Your task to perform on an android device: Clear all items from cart on ebay. Add "usb-a" to the cart on ebay Image 0: 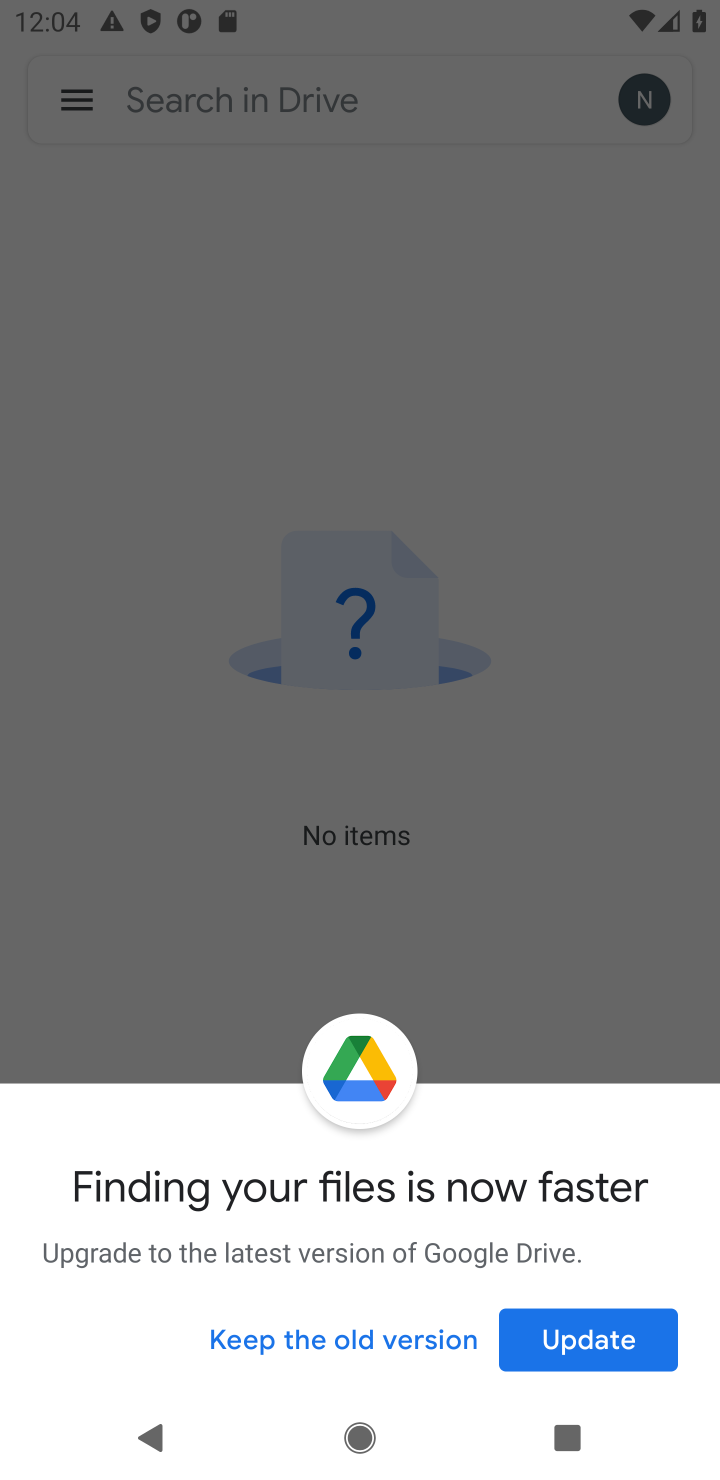
Step 0: press home button
Your task to perform on an android device: Clear all items from cart on ebay. Add "usb-a" to the cart on ebay Image 1: 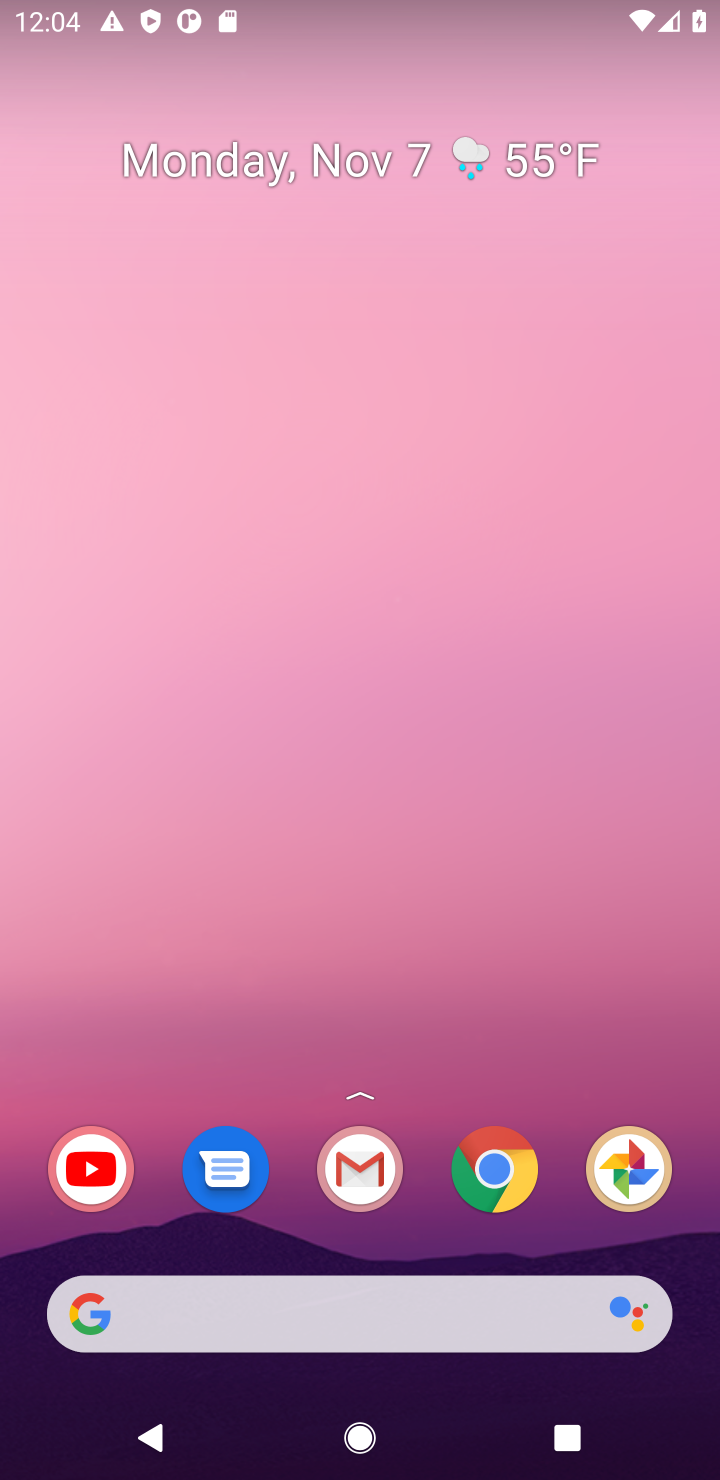
Step 1: click (501, 1148)
Your task to perform on an android device: Clear all items from cart on ebay. Add "usb-a" to the cart on ebay Image 2: 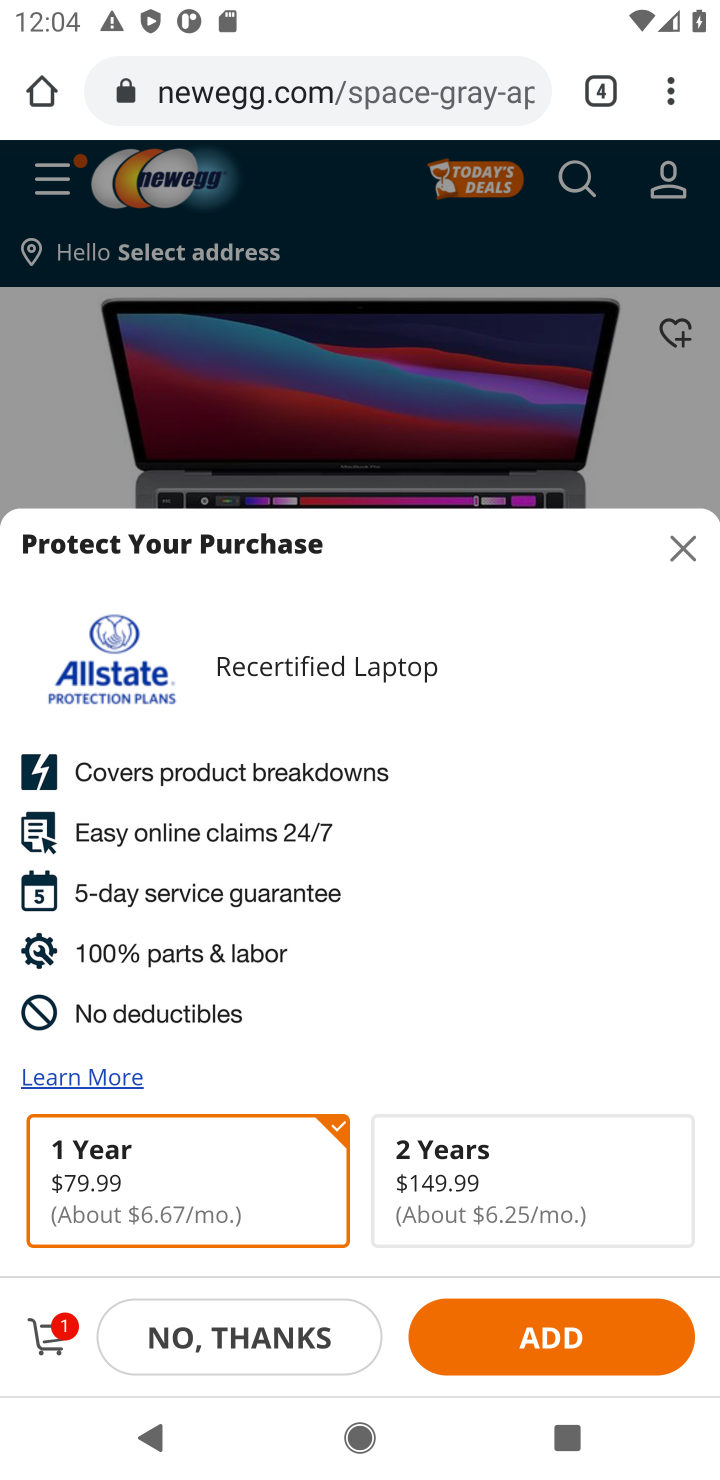
Step 2: click (591, 103)
Your task to perform on an android device: Clear all items from cart on ebay. Add "usb-a" to the cart on ebay Image 3: 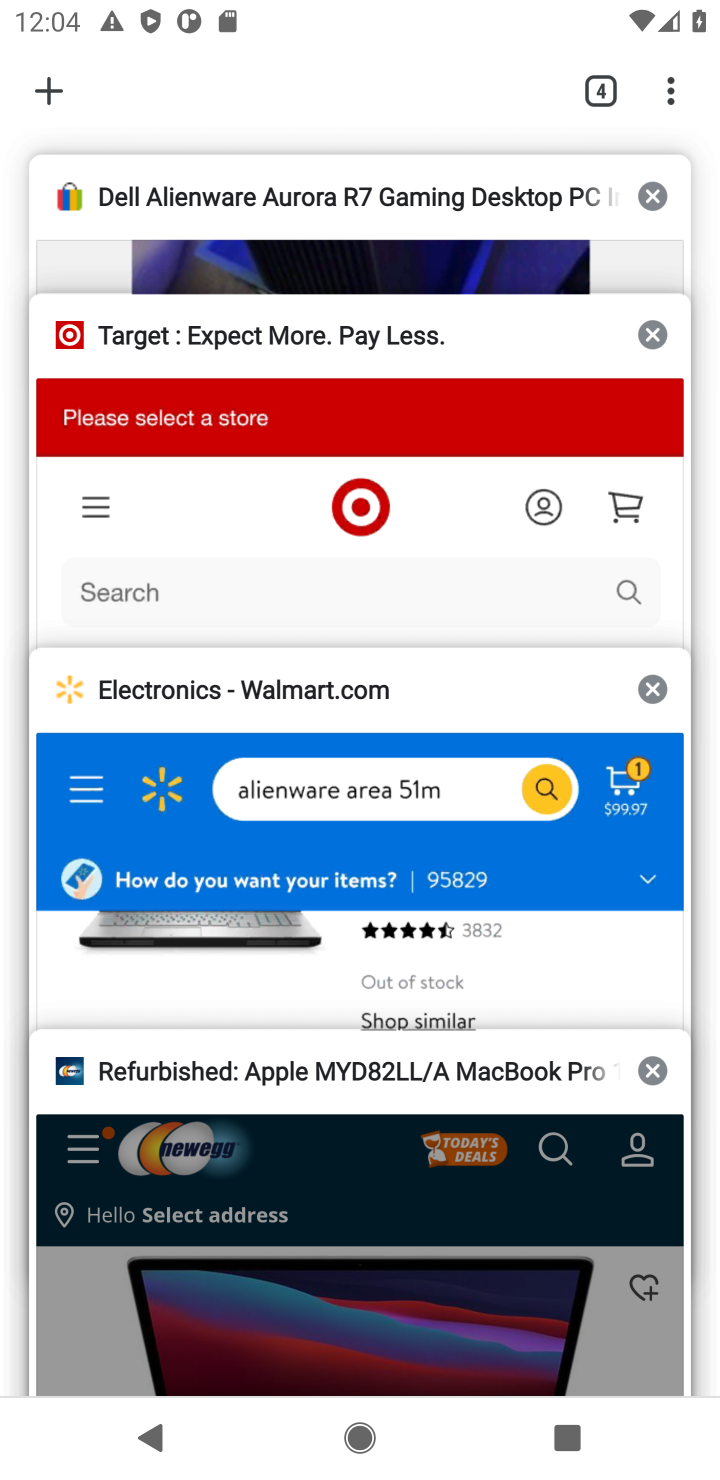
Step 3: click (189, 209)
Your task to perform on an android device: Clear all items from cart on ebay. Add "usb-a" to the cart on ebay Image 4: 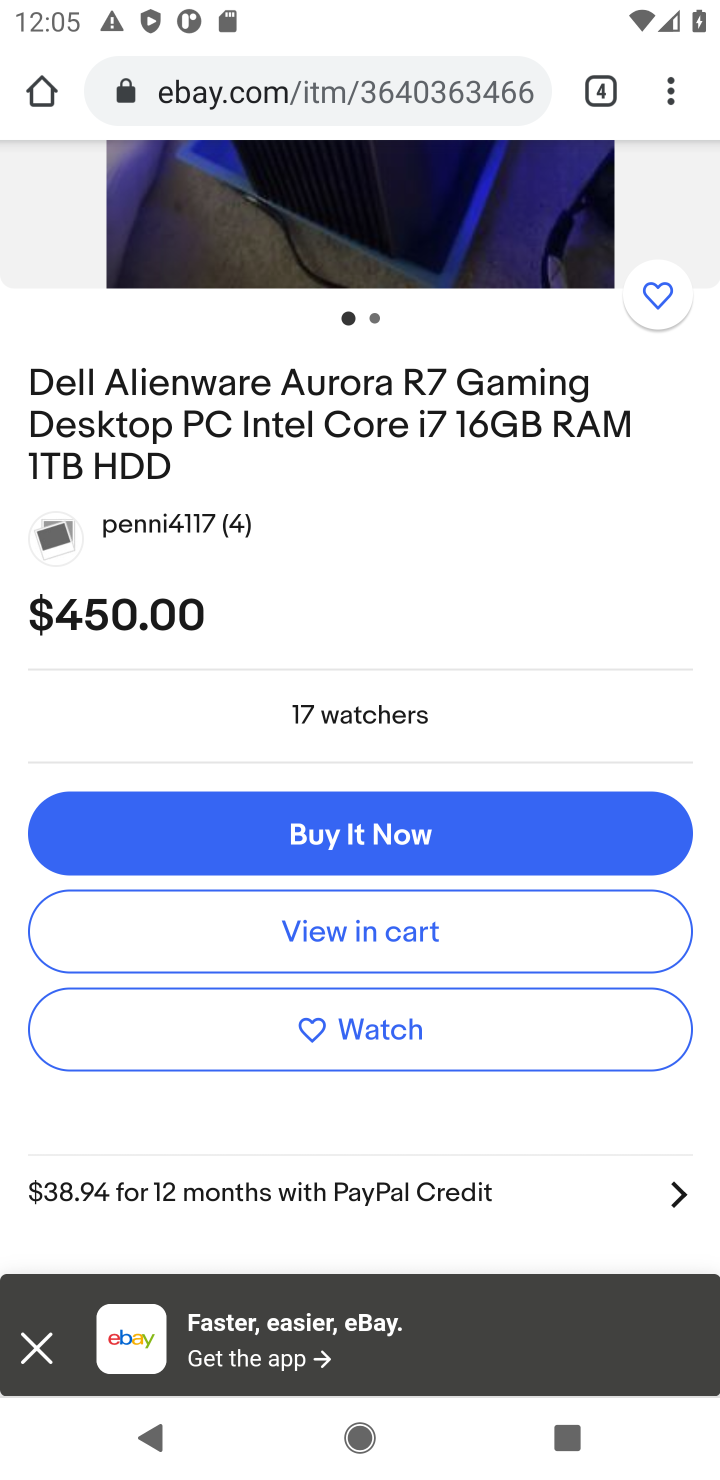
Step 4: drag from (193, 821) to (293, 1269)
Your task to perform on an android device: Clear all items from cart on ebay. Add "usb-a" to the cart on ebay Image 5: 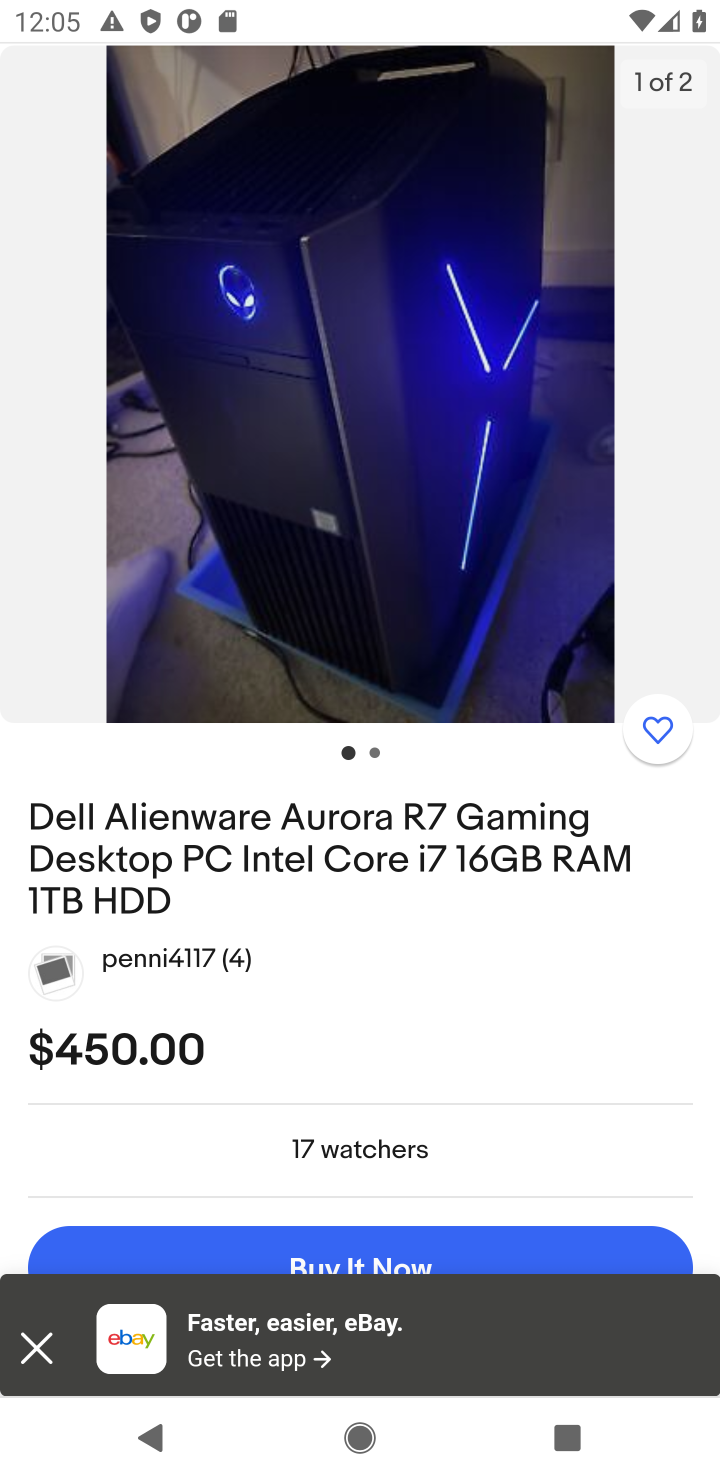
Step 5: drag from (595, 227) to (699, 1461)
Your task to perform on an android device: Clear all items from cart on ebay. Add "usb-a" to the cart on ebay Image 6: 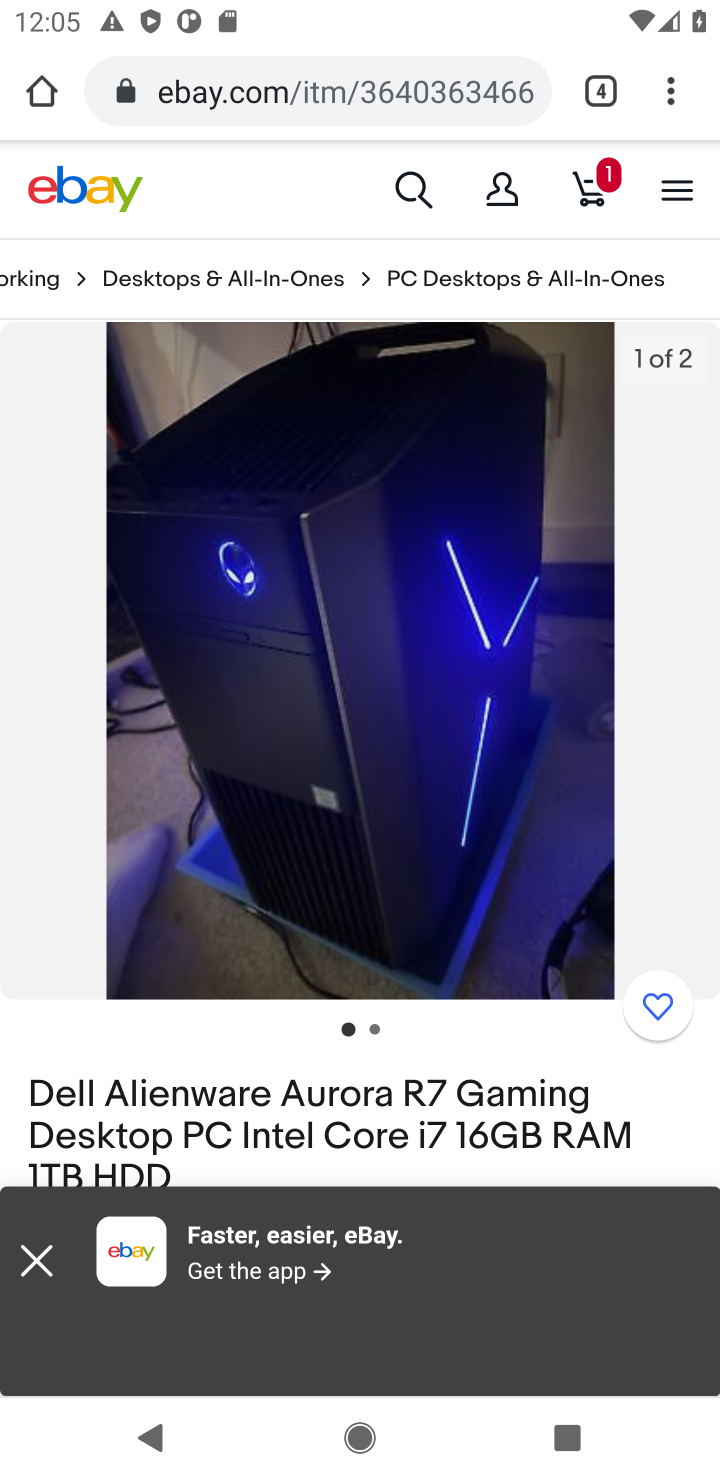
Step 6: click (584, 172)
Your task to perform on an android device: Clear all items from cart on ebay. Add "usb-a" to the cart on ebay Image 7: 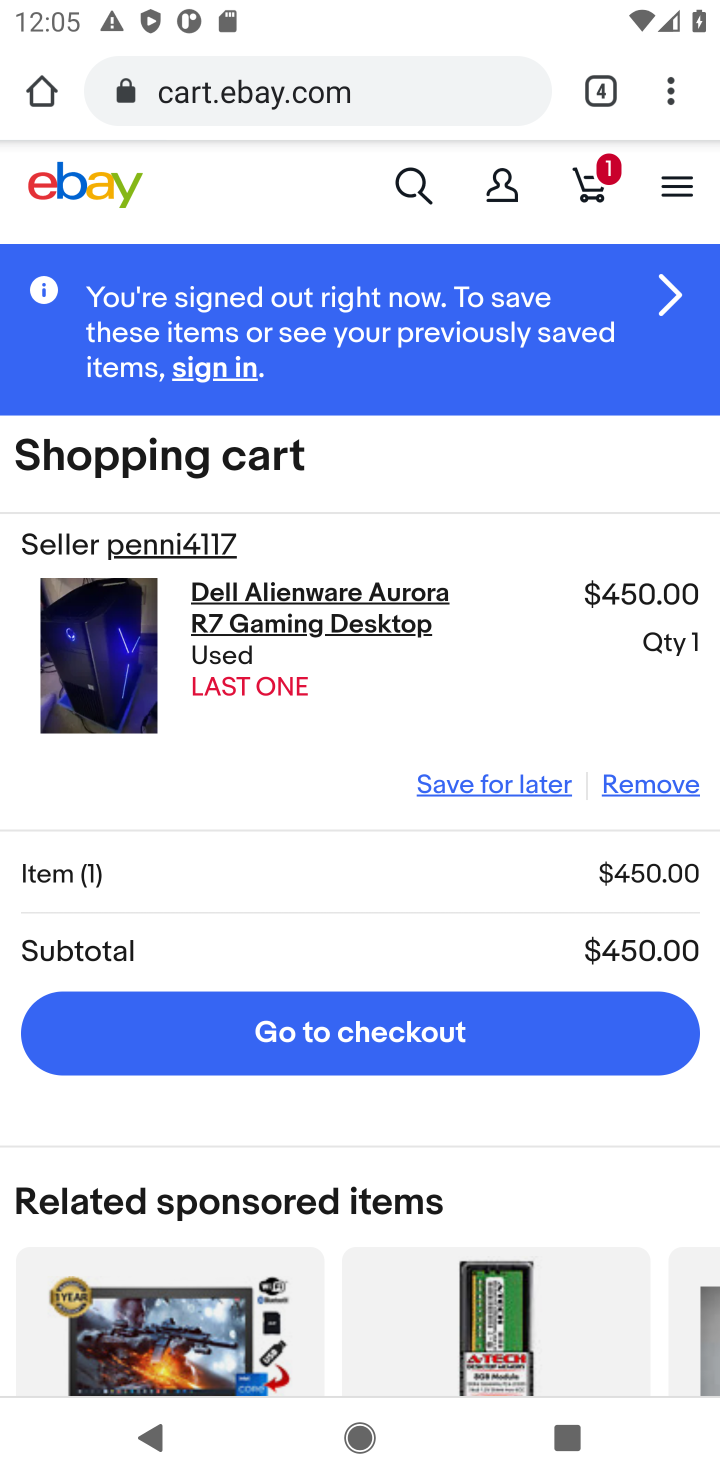
Step 7: click (628, 757)
Your task to perform on an android device: Clear all items from cart on ebay. Add "usb-a" to the cart on ebay Image 8: 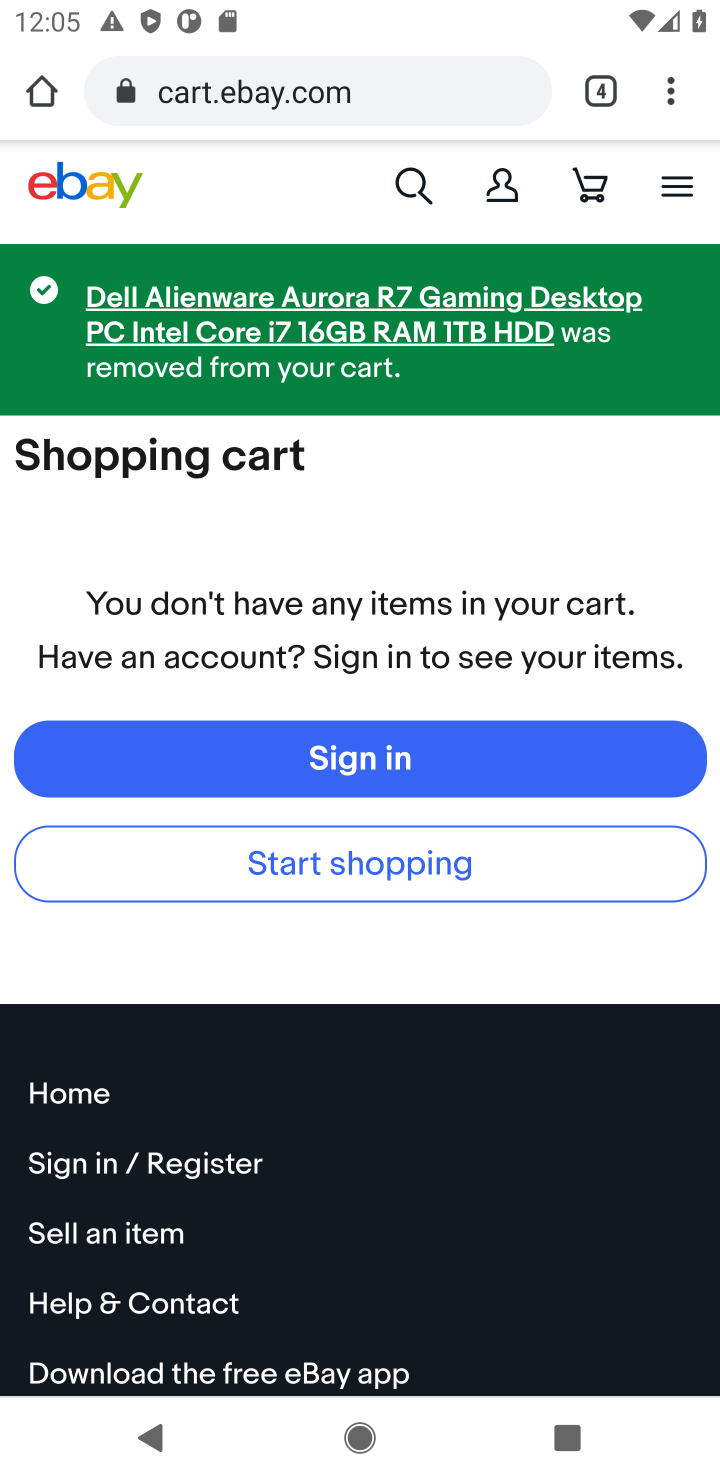
Step 8: click (398, 180)
Your task to perform on an android device: Clear all items from cart on ebay. Add "usb-a" to the cart on ebay Image 9: 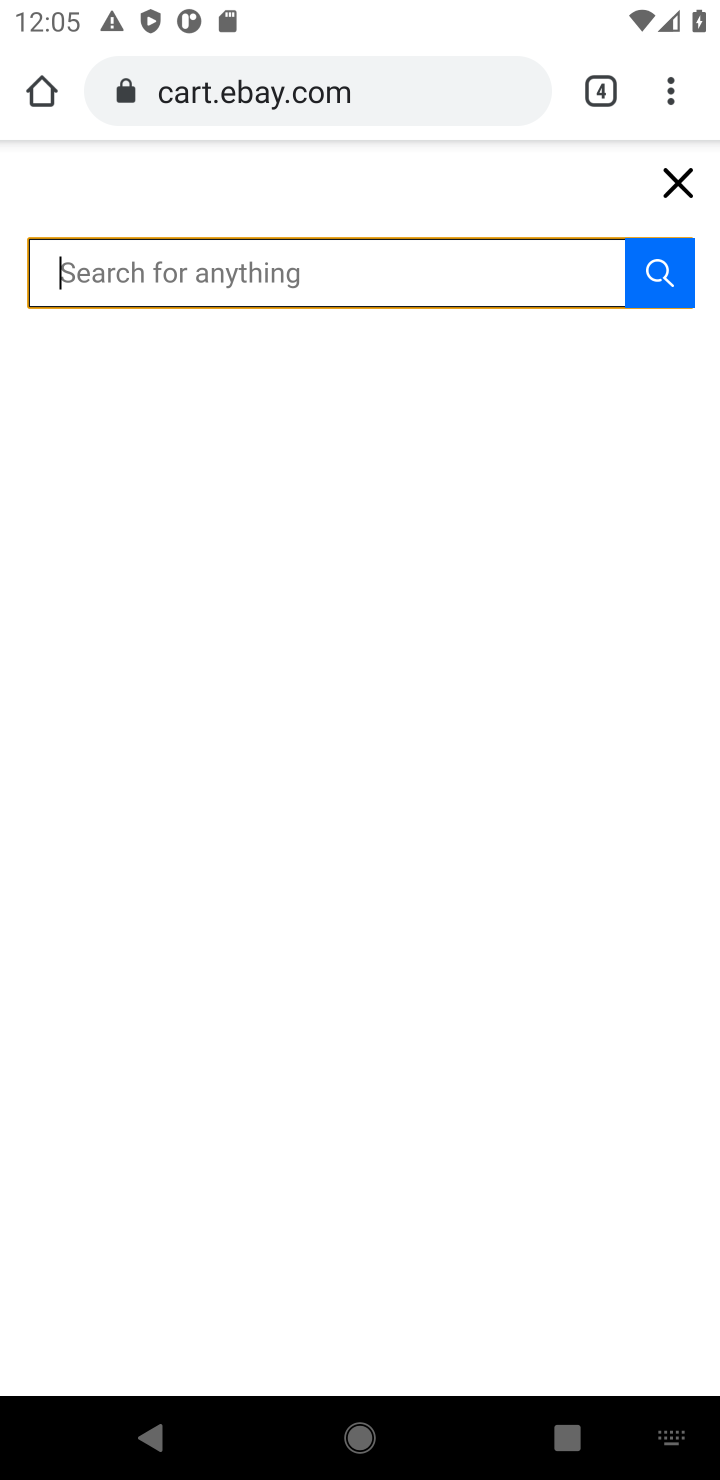
Step 9: type "usb-"
Your task to perform on an android device: Clear all items from cart on ebay. Add "usb-a" to the cart on ebay Image 10: 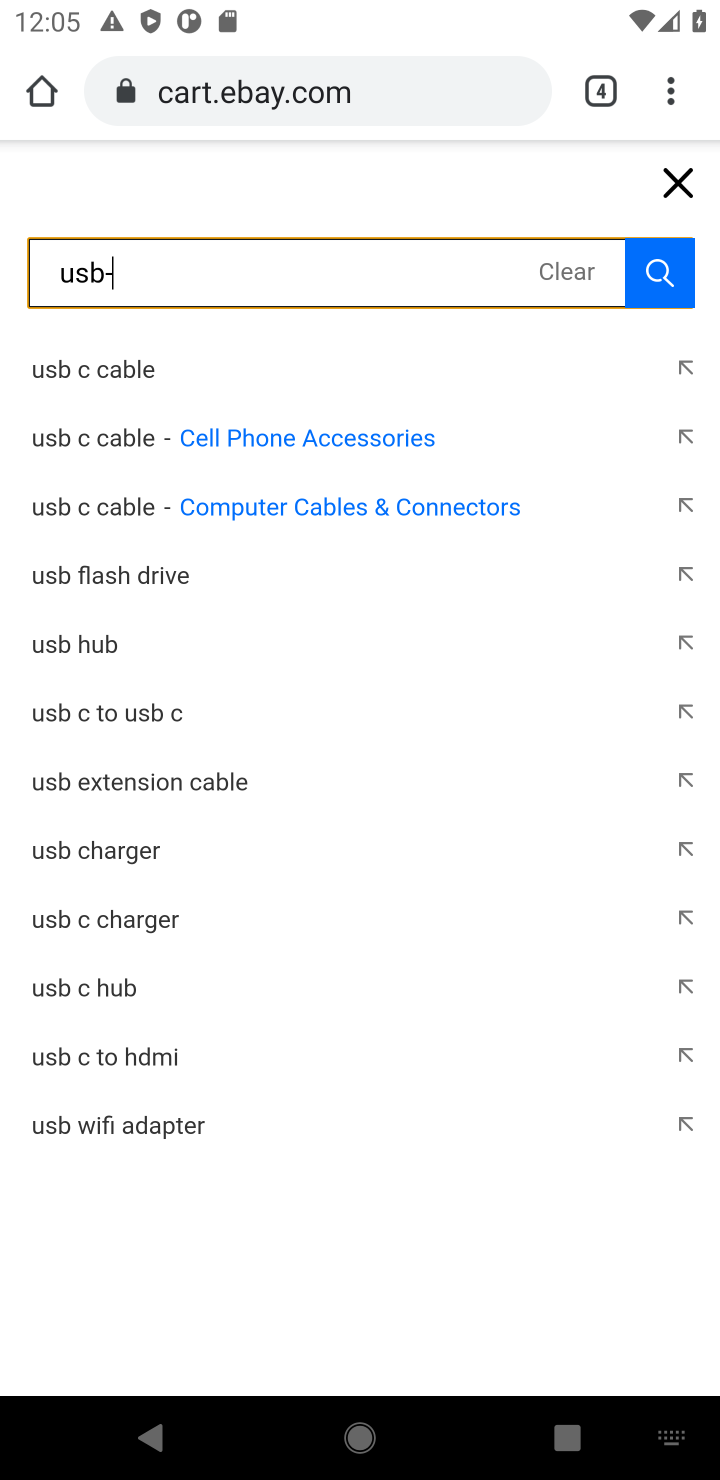
Step 10: type "a"
Your task to perform on an android device: Clear all items from cart on ebay. Add "usb-a" to the cart on ebay Image 11: 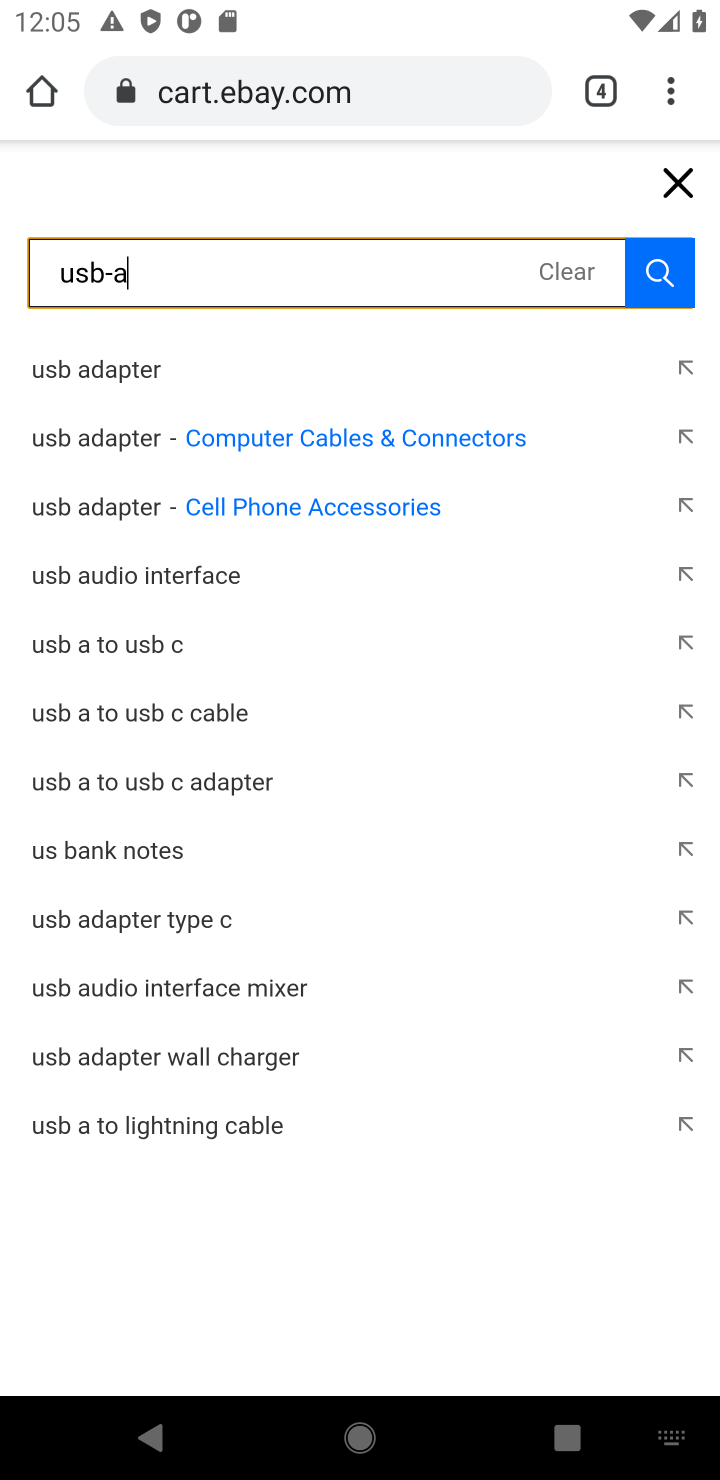
Step 11: click (651, 262)
Your task to perform on an android device: Clear all items from cart on ebay. Add "usb-a" to the cart on ebay Image 12: 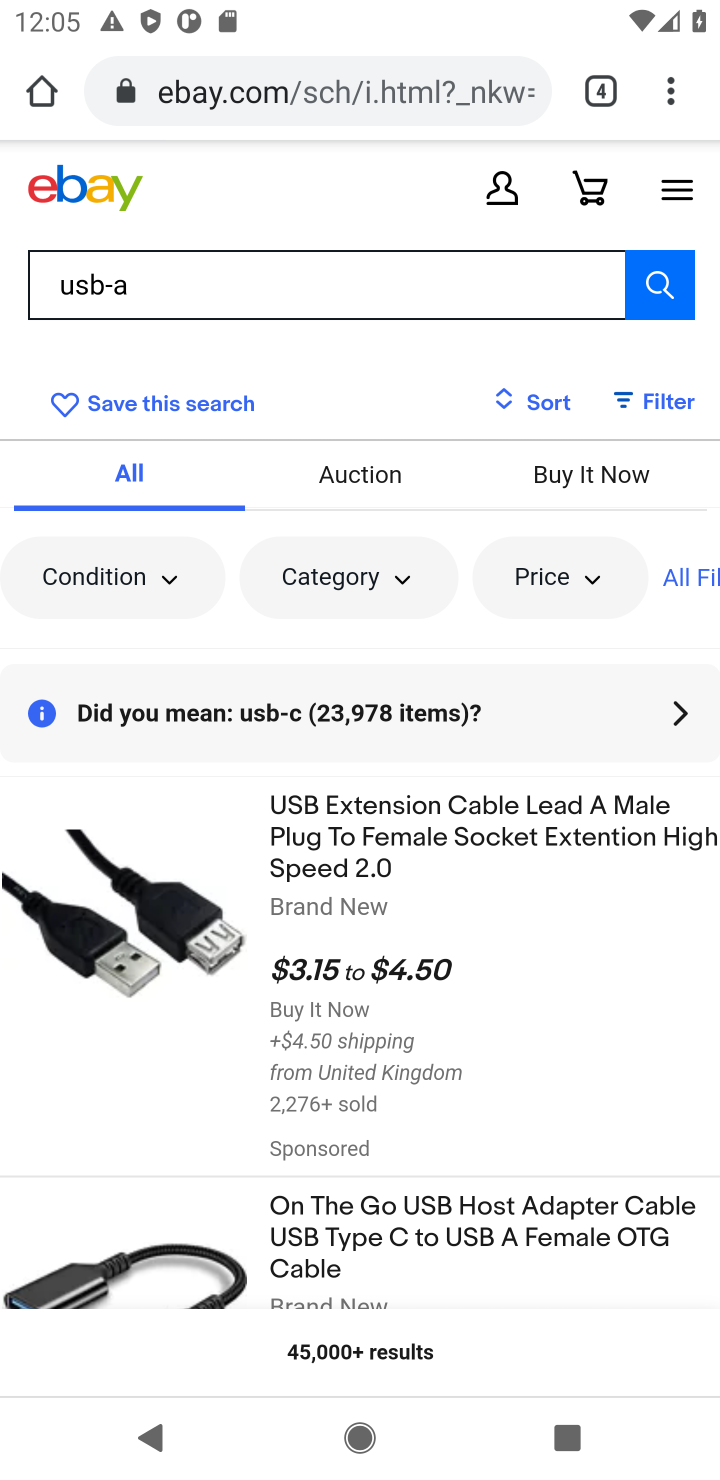
Step 12: click (308, 816)
Your task to perform on an android device: Clear all items from cart on ebay. Add "usb-a" to the cart on ebay Image 13: 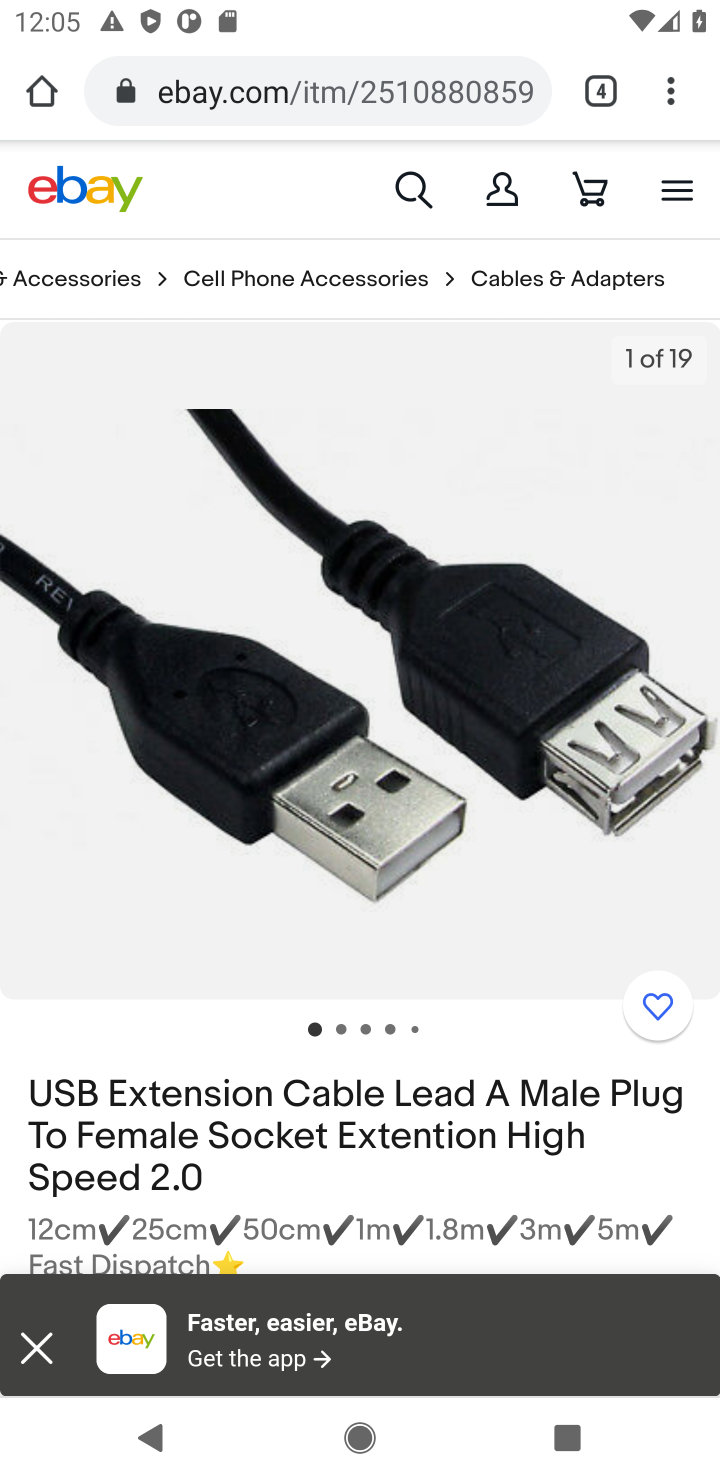
Step 13: drag from (454, 1167) to (623, 82)
Your task to perform on an android device: Clear all items from cart on ebay. Add "usb-a" to the cart on ebay Image 14: 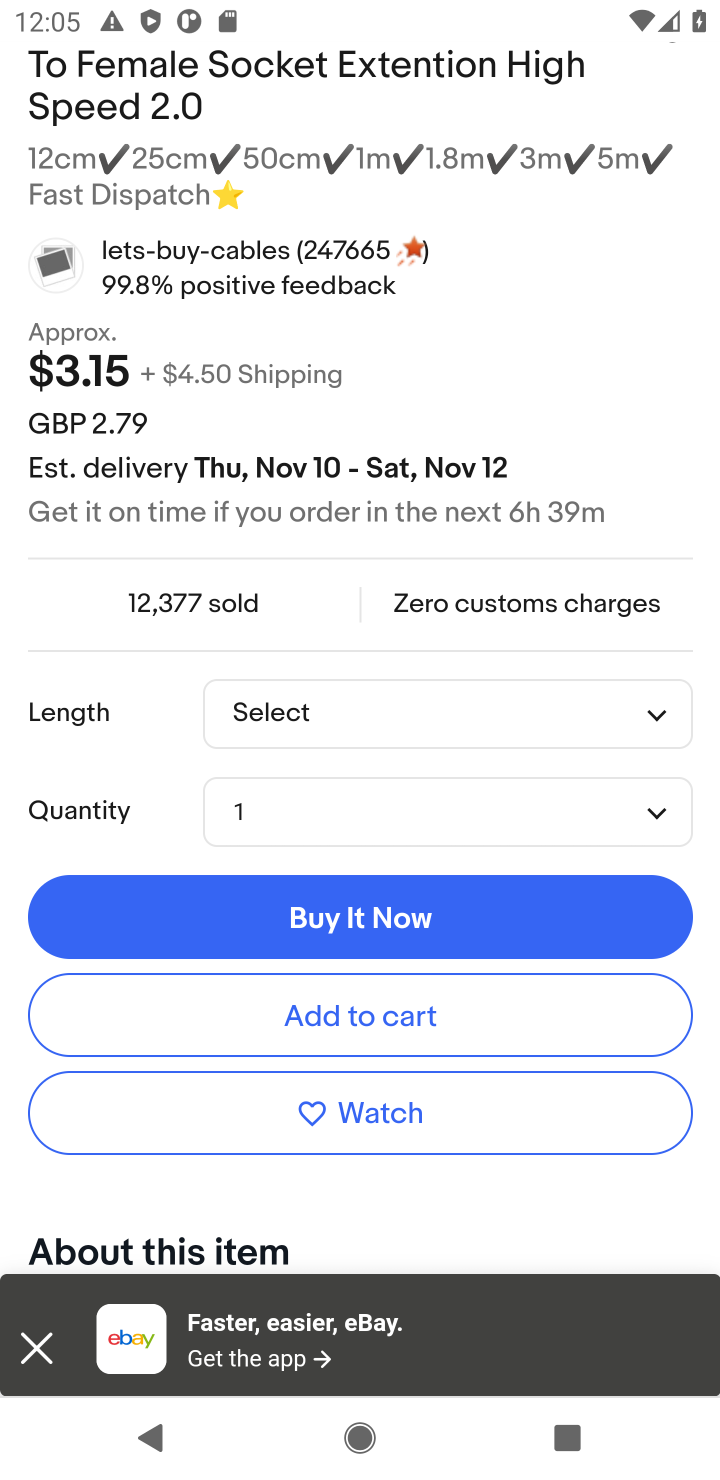
Step 14: click (424, 999)
Your task to perform on an android device: Clear all items from cart on ebay. Add "usb-a" to the cart on ebay Image 15: 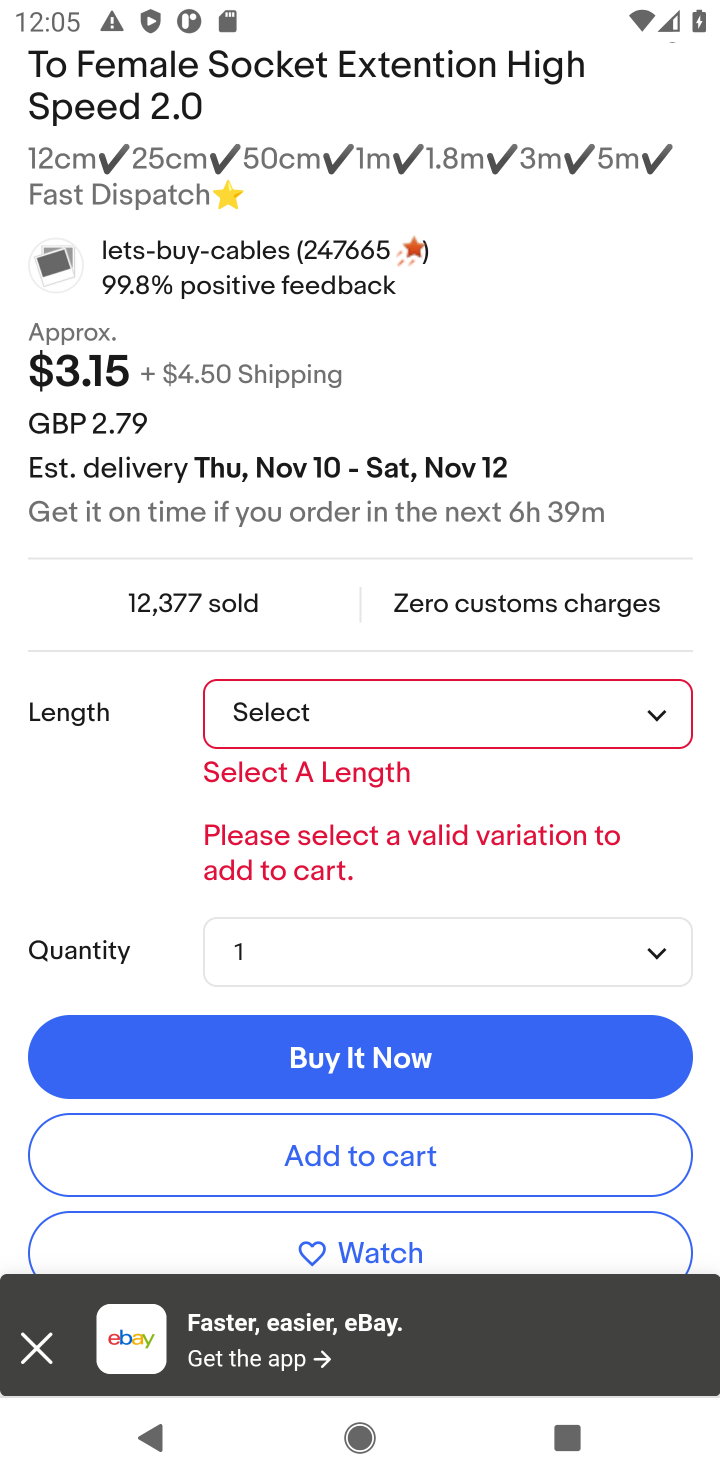
Step 15: click (660, 708)
Your task to perform on an android device: Clear all items from cart on ebay. Add "usb-a" to the cart on ebay Image 16: 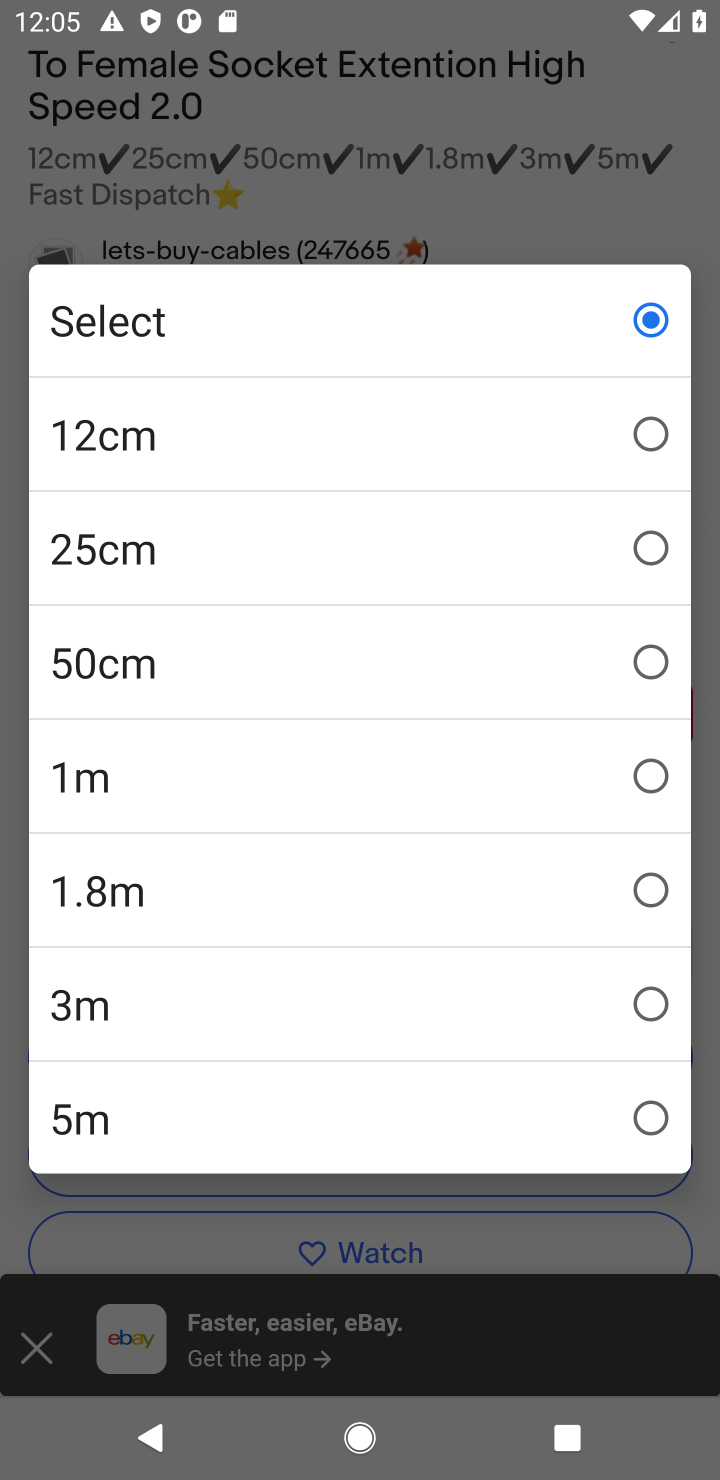
Step 16: click (656, 426)
Your task to perform on an android device: Clear all items from cart on ebay. Add "usb-a" to the cart on ebay Image 17: 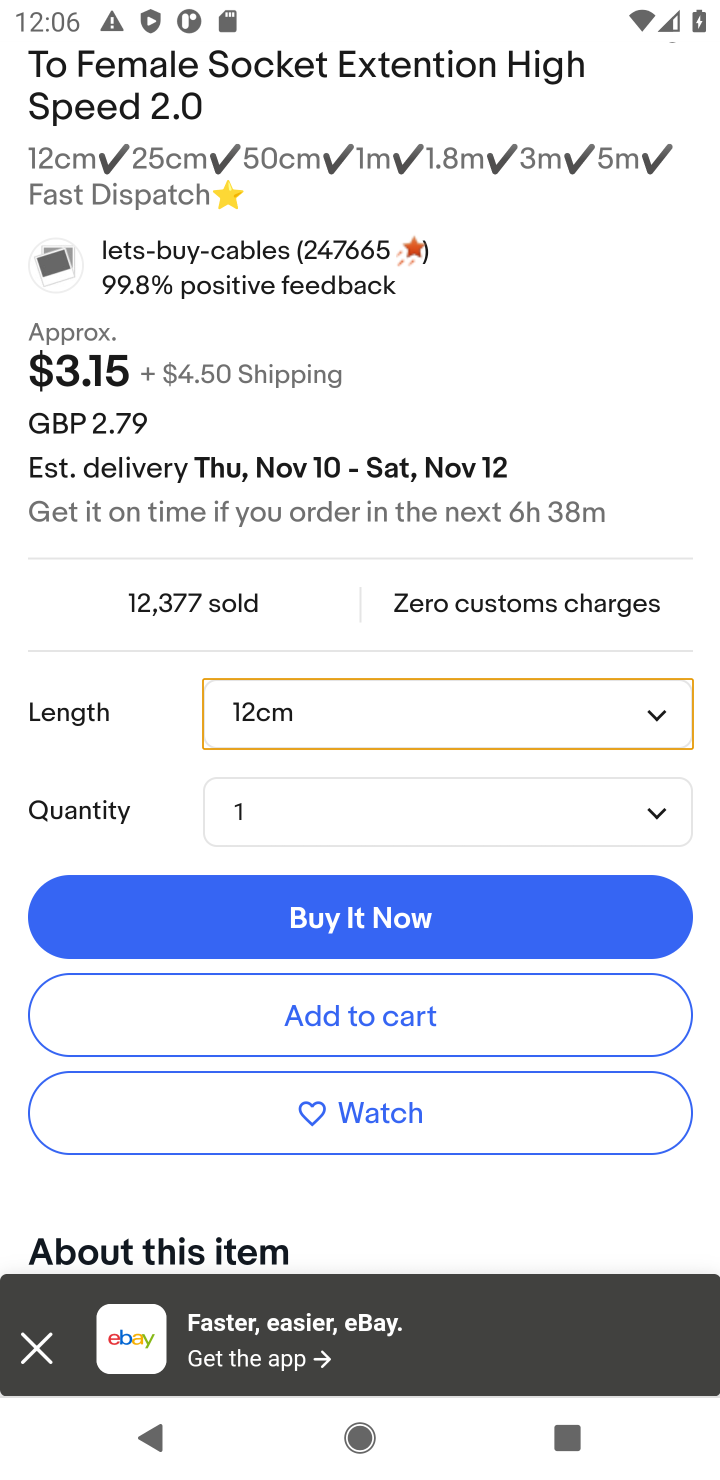
Step 17: click (428, 1008)
Your task to perform on an android device: Clear all items from cart on ebay. Add "usb-a" to the cart on ebay Image 18: 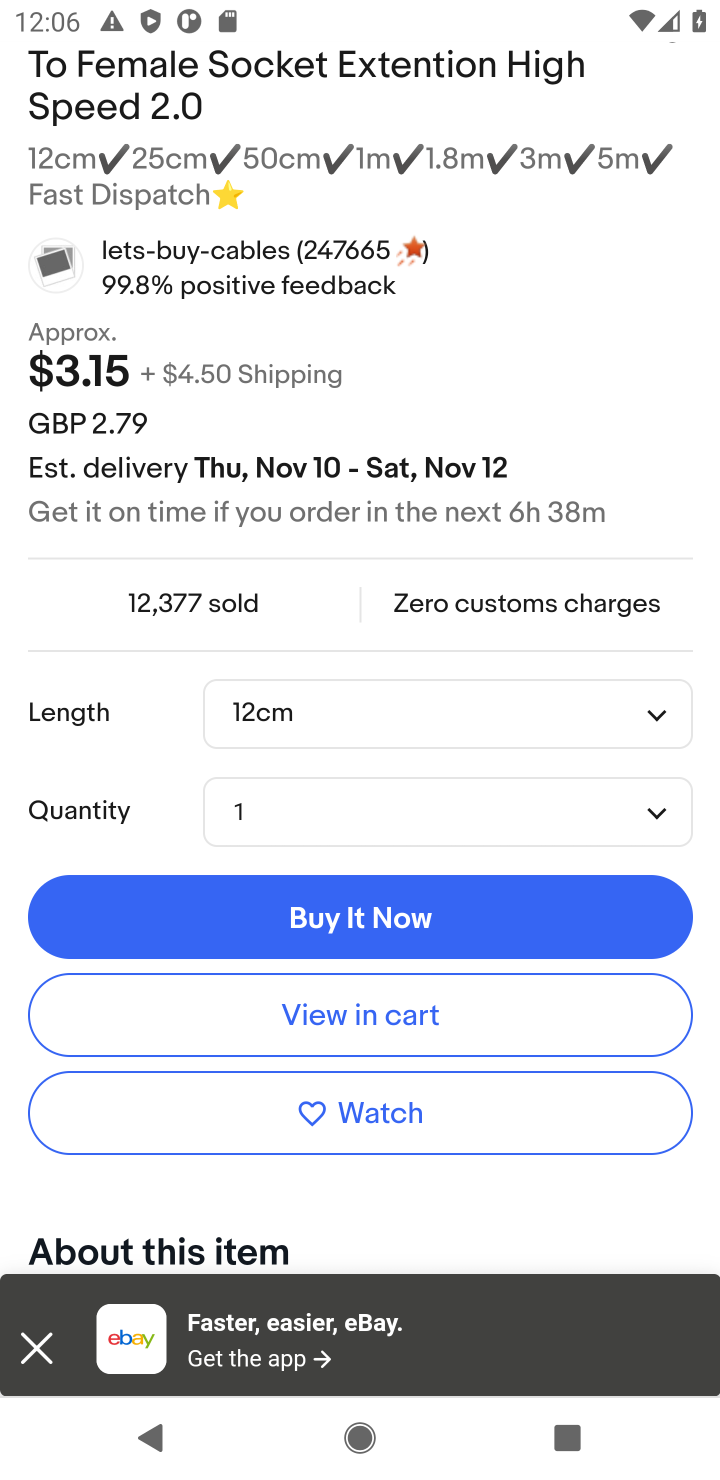
Step 18: task complete